Your task to perform on an android device: change timer sound Image 0: 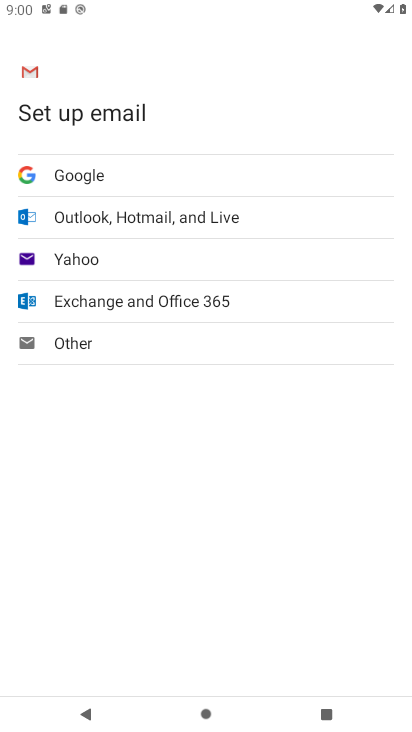
Step 0: press home button
Your task to perform on an android device: change timer sound Image 1: 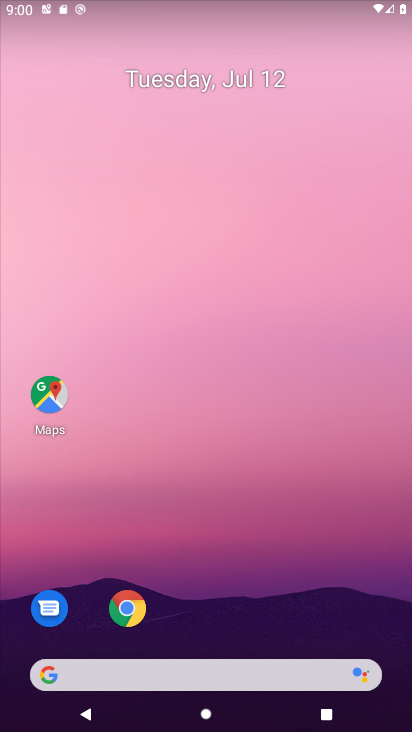
Step 1: drag from (215, 668) to (344, 48)
Your task to perform on an android device: change timer sound Image 2: 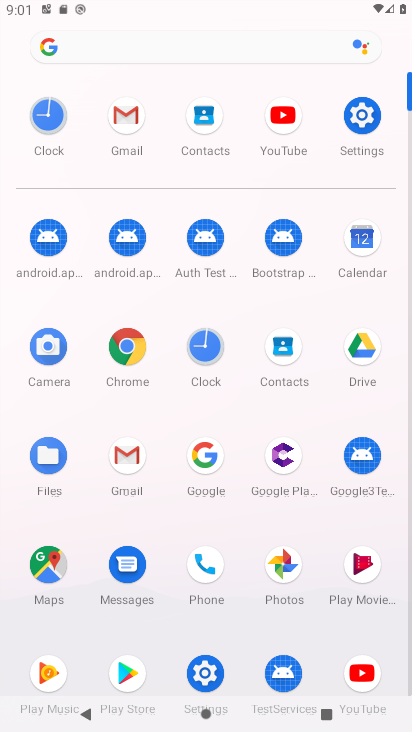
Step 2: click (208, 351)
Your task to perform on an android device: change timer sound Image 3: 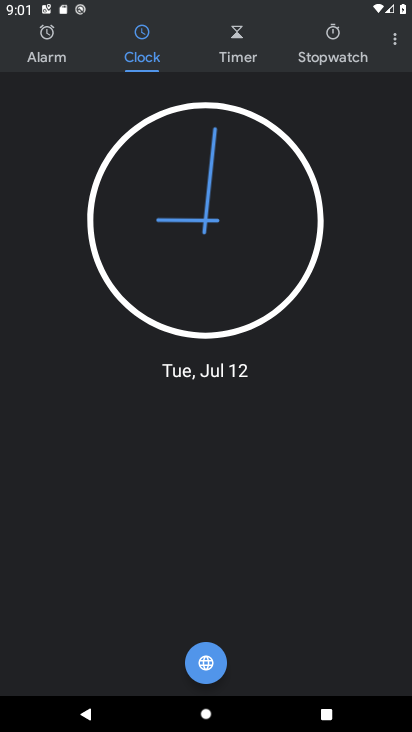
Step 3: click (237, 52)
Your task to perform on an android device: change timer sound Image 4: 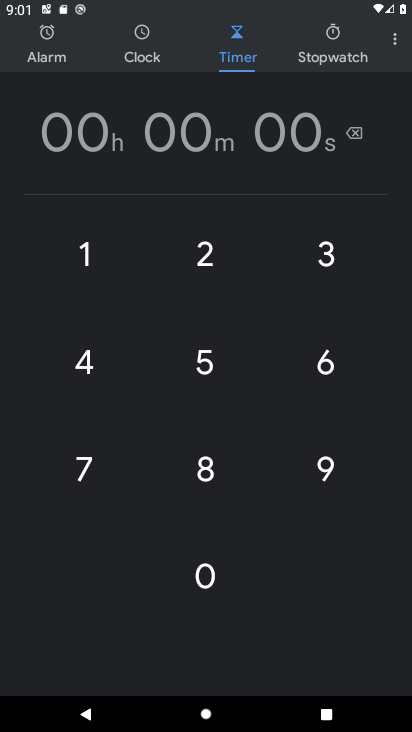
Step 4: click (387, 34)
Your task to perform on an android device: change timer sound Image 5: 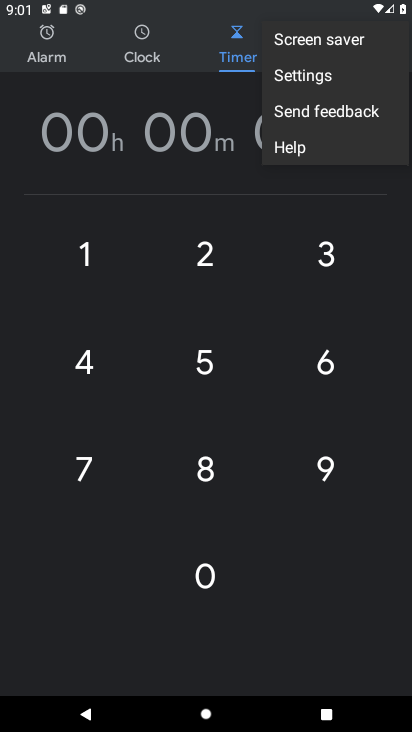
Step 5: click (325, 78)
Your task to perform on an android device: change timer sound Image 6: 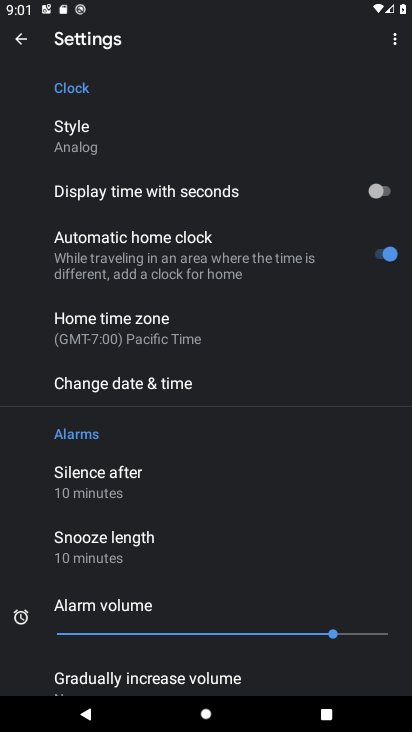
Step 6: drag from (216, 549) to (321, 229)
Your task to perform on an android device: change timer sound Image 7: 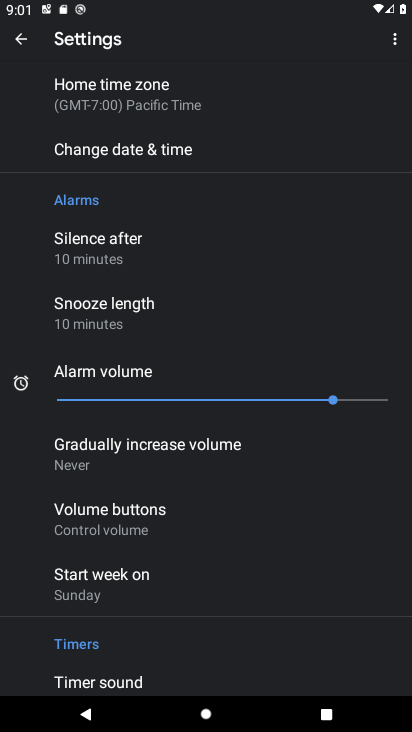
Step 7: drag from (237, 541) to (369, 102)
Your task to perform on an android device: change timer sound Image 8: 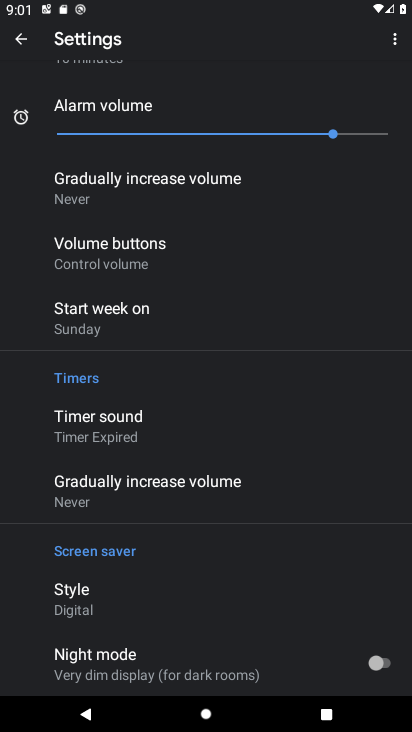
Step 8: click (119, 421)
Your task to perform on an android device: change timer sound Image 9: 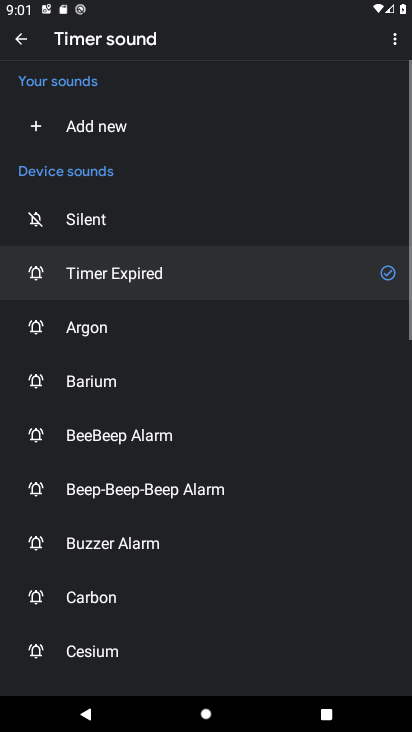
Step 9: click (94, 377)
Your task to perform on an android device: change timer sound Image 10: 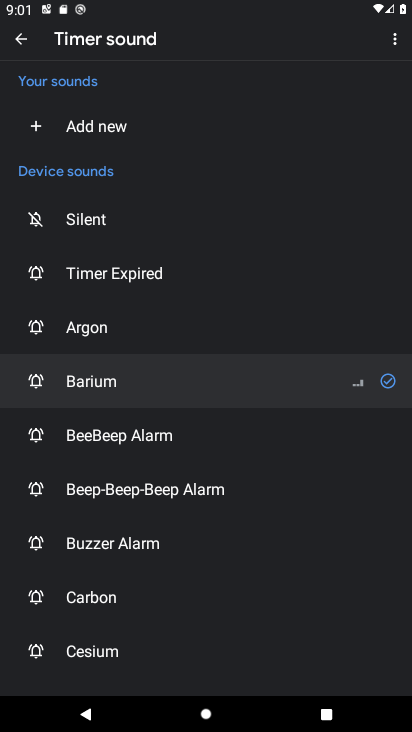
Step 10: task complete